Your task to perform on an android device: turn on notifications settings in the gmail app Image 0: 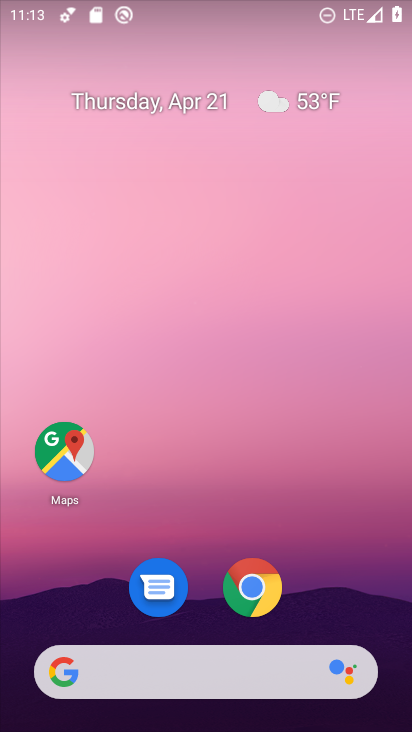
Step 0: drag from (218, 682) to (192, 277)
Your task to perform on an android device: turn on notifications settings in the gmail app Image 1: 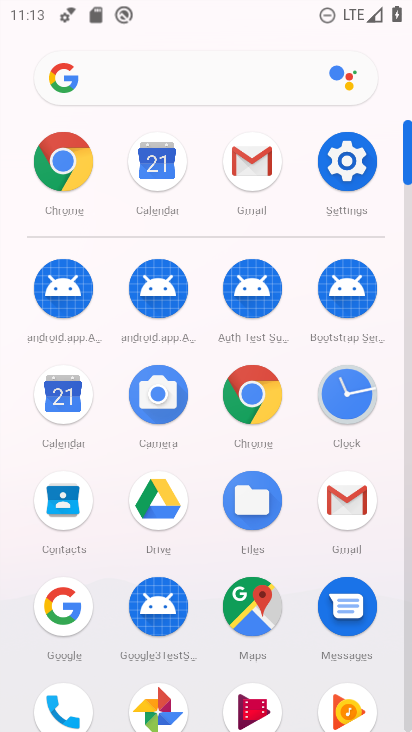
Step 1: click (255, 187)
Your task to perform on an android device: turn on notifications settings in the gmail app Image 2: 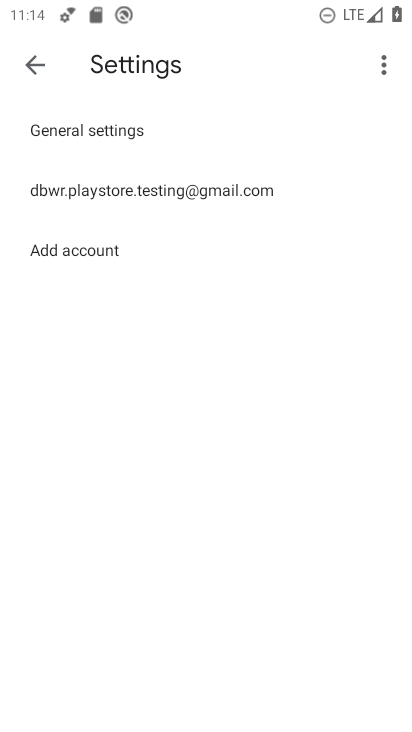
Step 2: click (112, 196)
Your task to perform on an android device: turn on notifications settings in the gmail app Image 3: 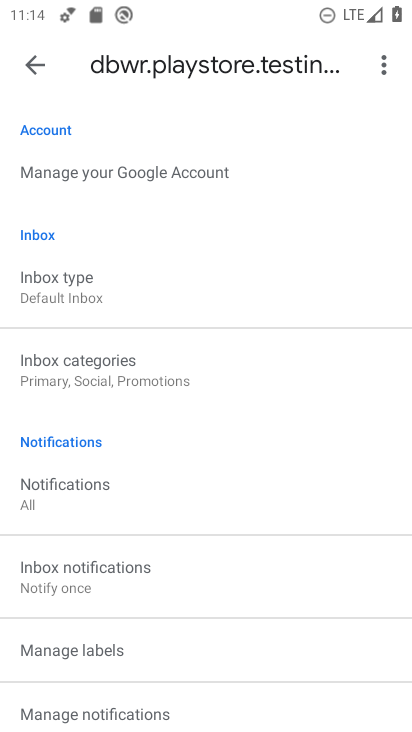
Step 3: drag from (144, 526) to (39, 26)
Your task to perform on an android device: turn on notifications settings in the gmail app Image 4: 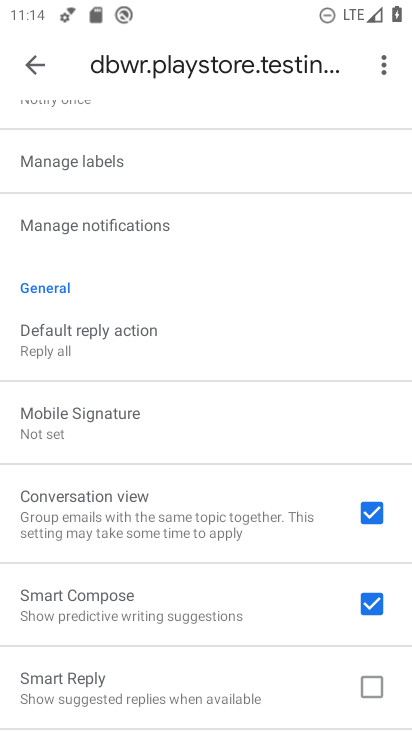
Step 4: click (66, 229)
Your task to perform on an android device: turn on notifications settings in the gmail app Image 5: 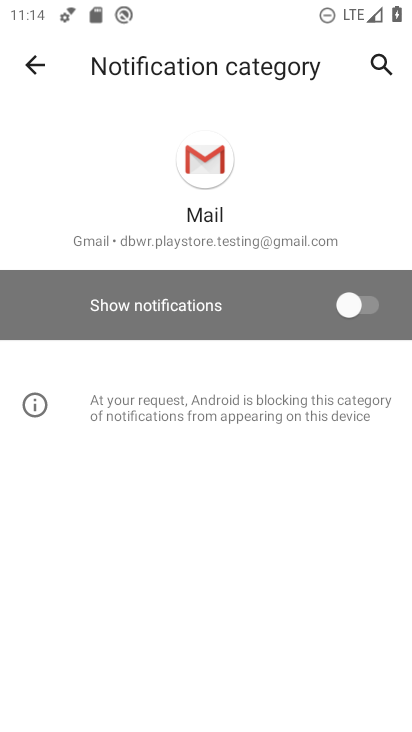
Step 5: click (355, 309)
Your task to perform on an android device: turn on notifications settings in the gmail app Image 6: 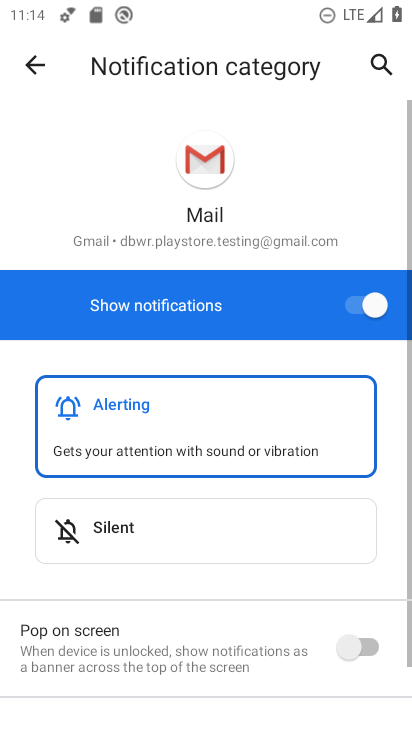
Step 6: task complete